Your task to perform on an android device: turn off smart reply in the gmail app Image 0: 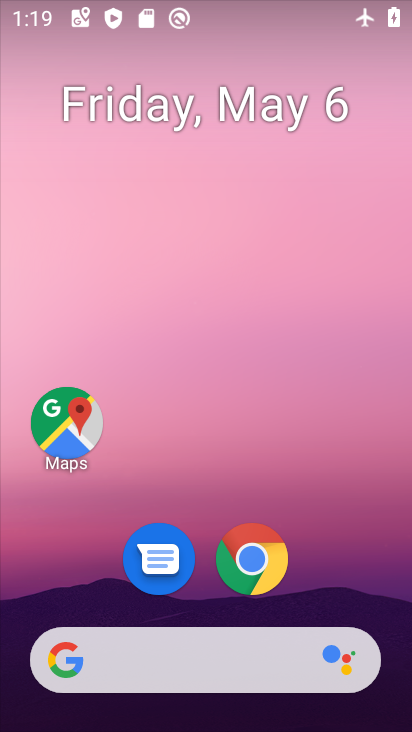
Step 0: drag from (178, 638) to (289, 132)
Your task to perform on an android device: turn off smart reply in the gmail app Image 1: 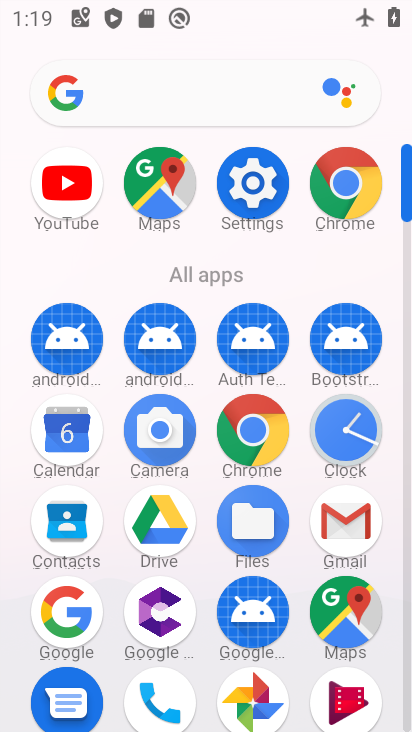
Step 1: click (361, 531)
Your task to perform on an android device: turn off smart reply in the gmail app Image 2: 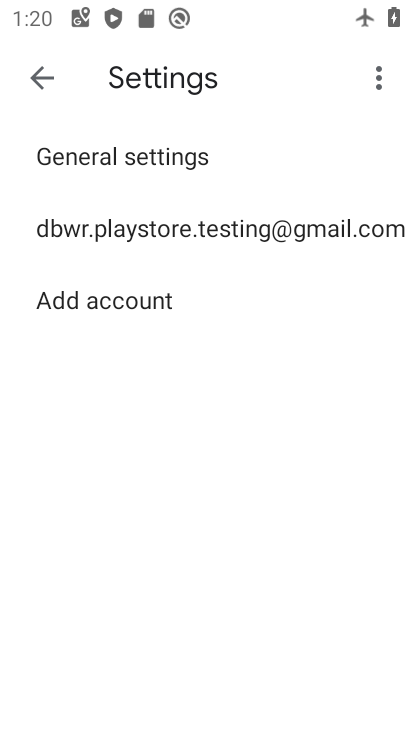
Step 2: click (111, 219)
Your task to perform on an android device: turn off smart reply in the gmail app Image 3: 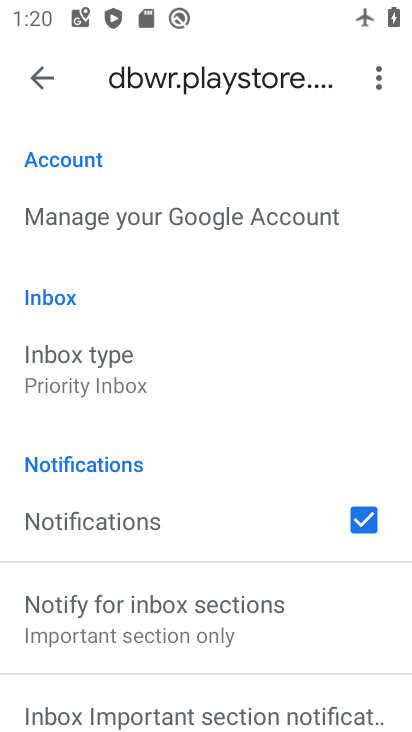
Step 3: drag from (152, 629) to (347, 46)
Your task to perform on an android device: turn off smart reply in the gmail app Image 4: 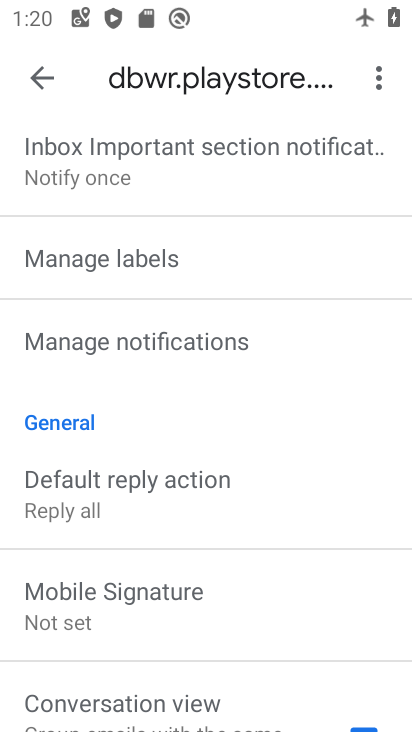
Step 4: drag from (186, 517) to (245, 233)
Your task to perform on an android device: turn off smart reply in the gmail app Image 5: 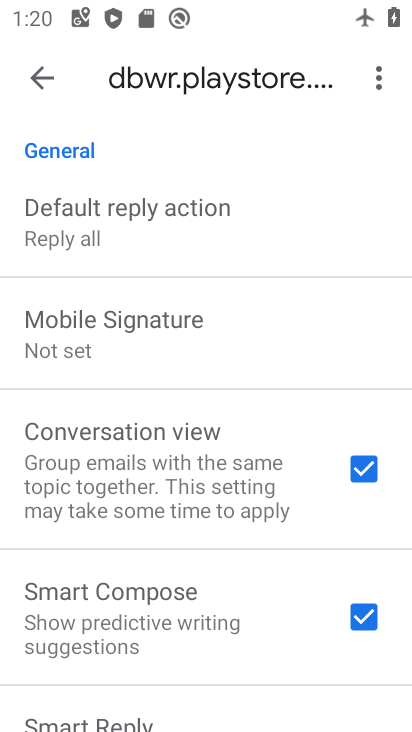
Step 5: drag from (129, 663) to (275, 294)
Your task to perform on an android device: turn off smart reply in the gmail app Image 6: 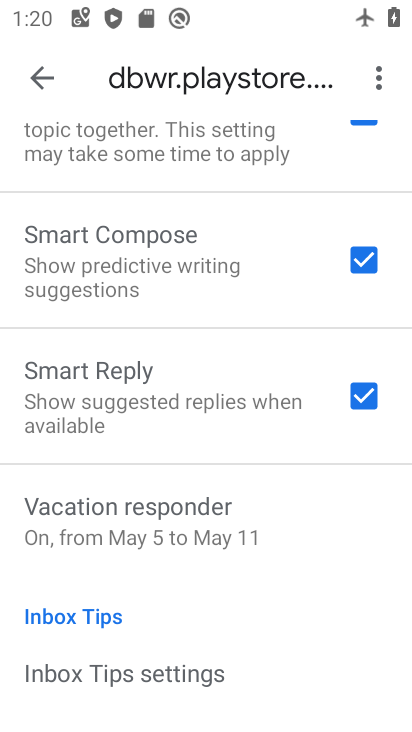
Step 6: click (366, 399)
Your task to perform on an android device: turn off smart reply in the gmail app Image 7: 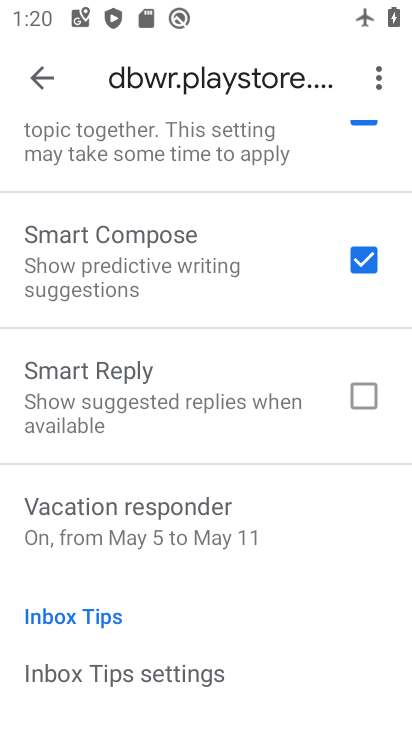
Step 7: task complete